Your task to perform on an android device: remove spam from my inbox in the gmail app Image 0: 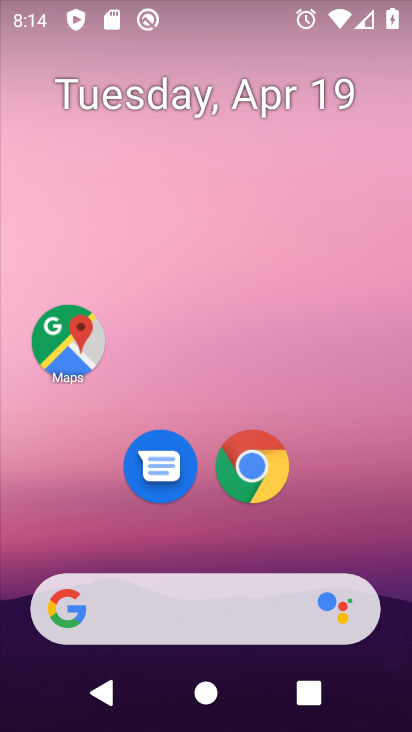
Step 0: drag from (393, 397) to (393, 77)
Your task to perform on an android device: remove spam from my inbox in the gmail app Image 1: 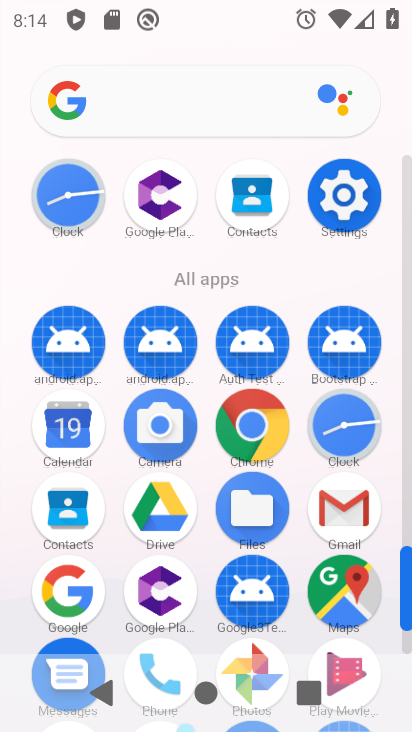
Step 1: click (335, 508)
Your task to perform on an android device: remove spam from my inbox in the gmail app Image 2: 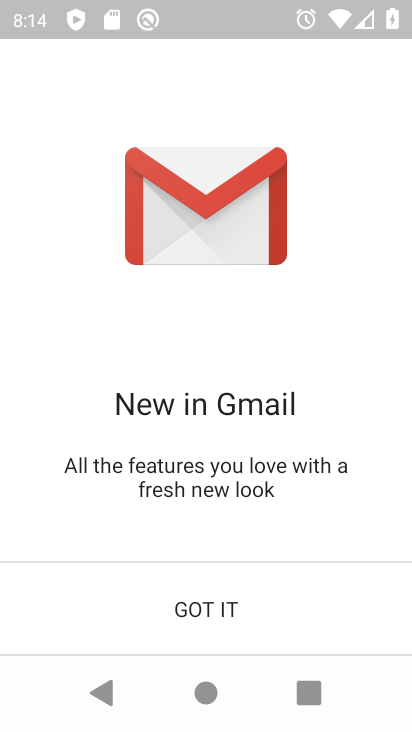
Step 2: click (219, 616)
Your task to perform on an android device: remove spam from my inbox in the gmail app Image 3: 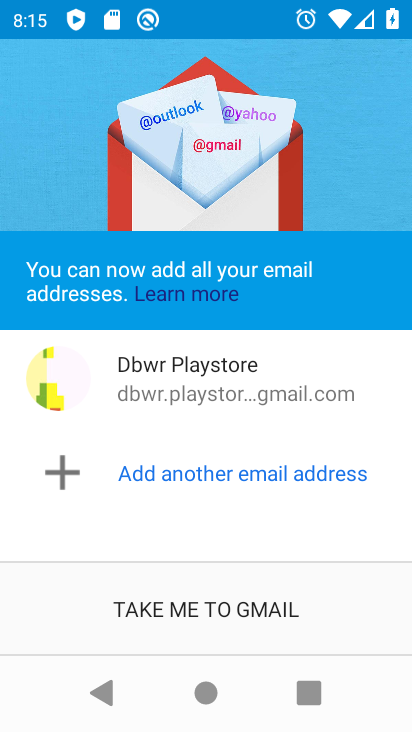
Step 3: click (255, 600)
Your task to perform on an android device: remove spam from my inbox in the gmail app Image 4: 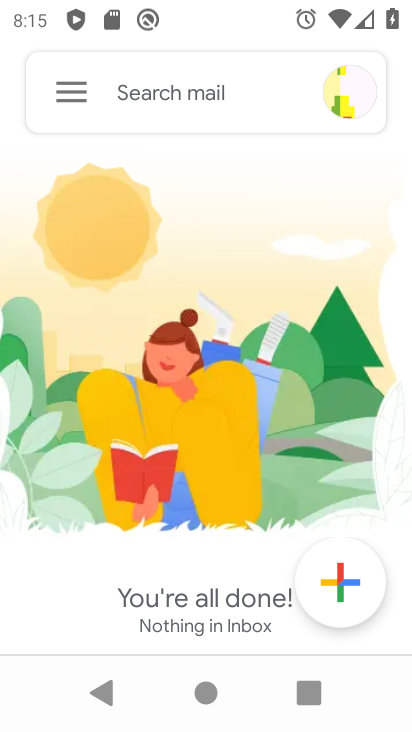
Step 4: click (68, 99)
Your task to perform on an android device: remove spam from my inbox in the gmail app Image 5: 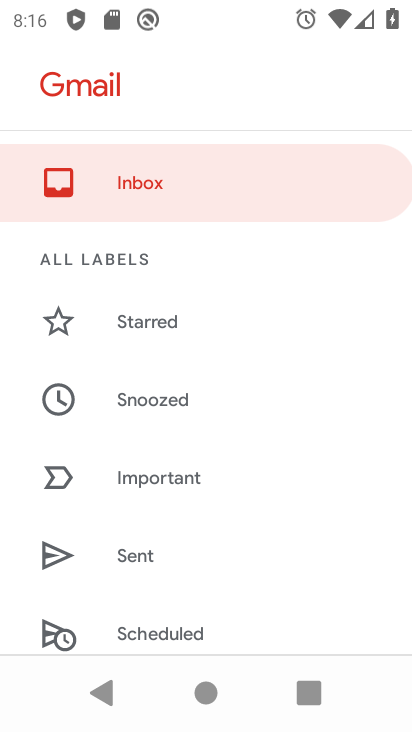
Step 5: drag from (132, 404) to (129, 241)
Your task to perform on an android device: remove spam from my inbox in the gmail app Image 6: 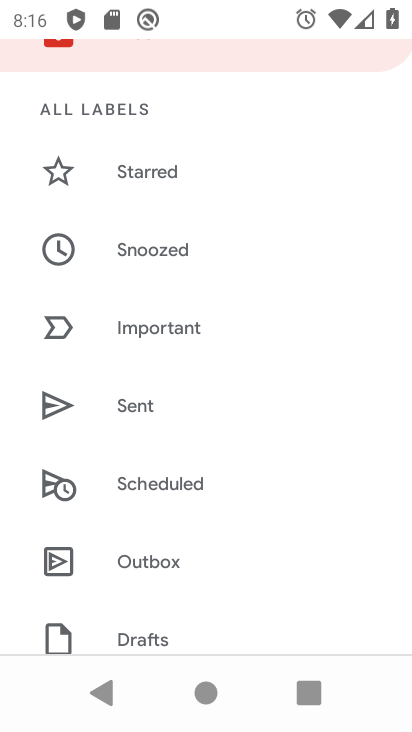
Step 6: drag from (179, 535) to (269, 249)
Your task to perform on an android device: remove spam from my inbox in the gmail app Image 7: 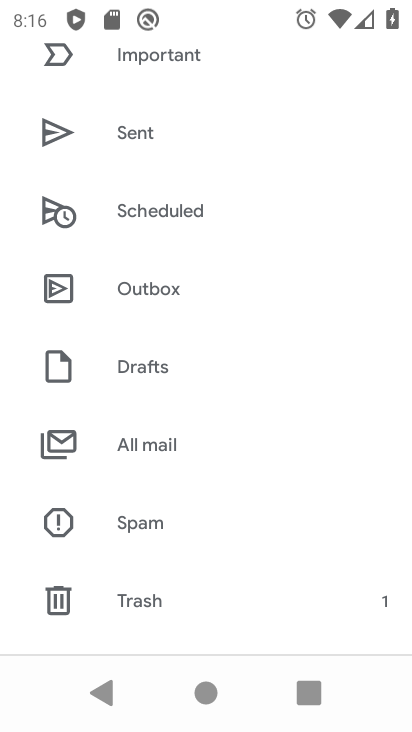
Step 7: click (160, 534)
Your task to perform on an android device: remove spam from my inbox in the gmail app Image 8: 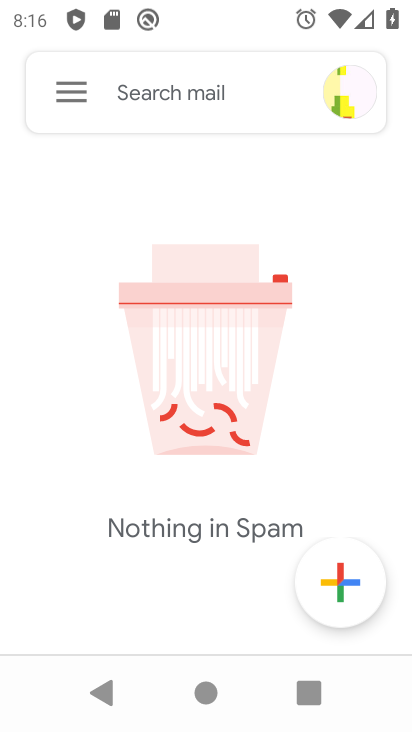
Step 8: task complete